Your task to perform on an android device: Search for seafood restaurants on Google Maps Image 0: 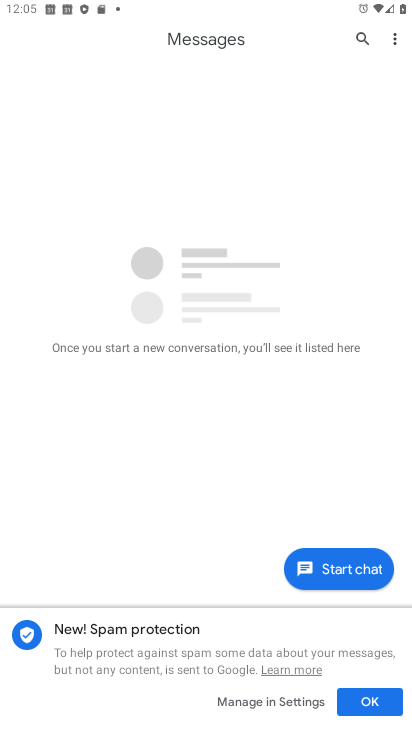
Step 0: drag from (197, 566) to (286, 207)
Your task to perform on an android device: Search for seafood restaurants on Google Maps Image 1: 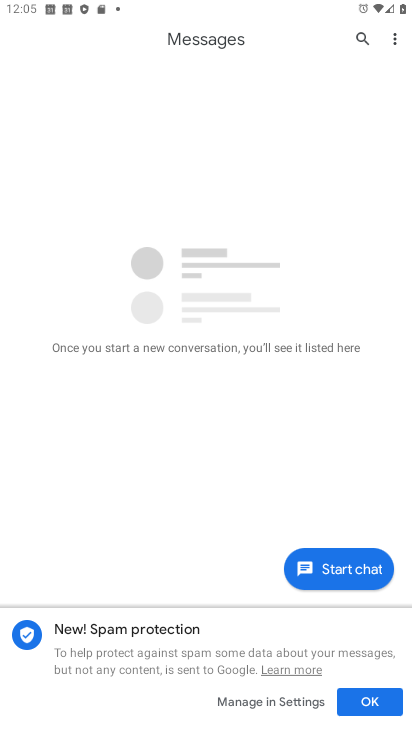
Step 1: drag from (191, 457) to (196, 268)
Your task to perform on an android device: Search for seafood restaurants on Google Maps Image 2: 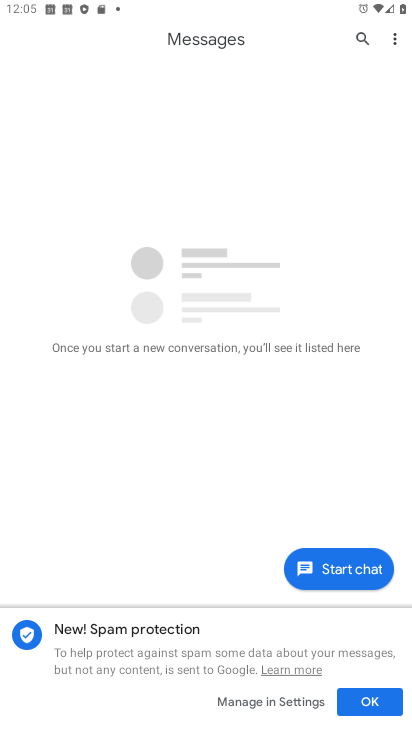
Step 2: drag from (200, 498) to (214, 187)
Your task to perform on an android device: Search for seafood restaurants on Google Maps Image 3: 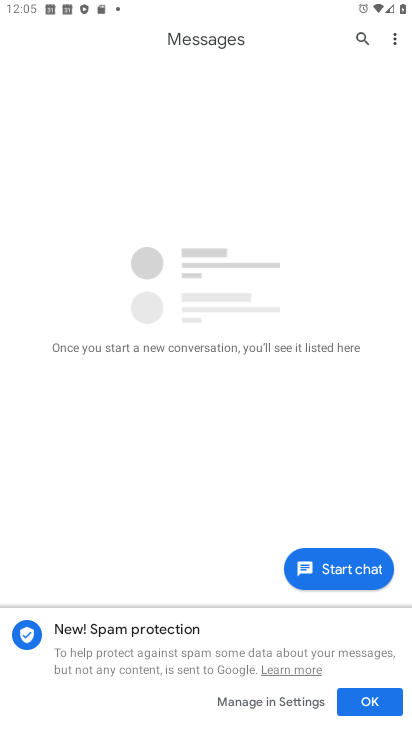
Step 3: drag from (224, 348) to (229, 193)
Your task to perform on an android device: Search for seafood restaurants on Google Maps Image 4: 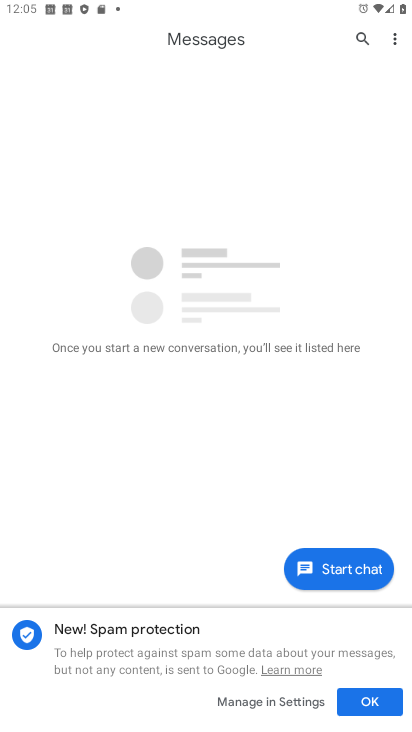
Step 4: drag from (268, 480) to (240, 290)
Your task to perform on an android device: Search for seafood restaurants on Google Maps Image 5: 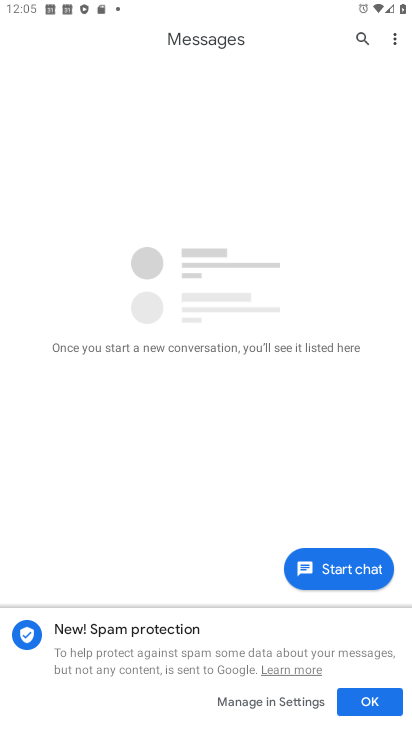
Step 5: drag from (178, 524) to (177, 224)
Your task to perform on an android device: Search for seafood restaurants on Google Maps Image 6: 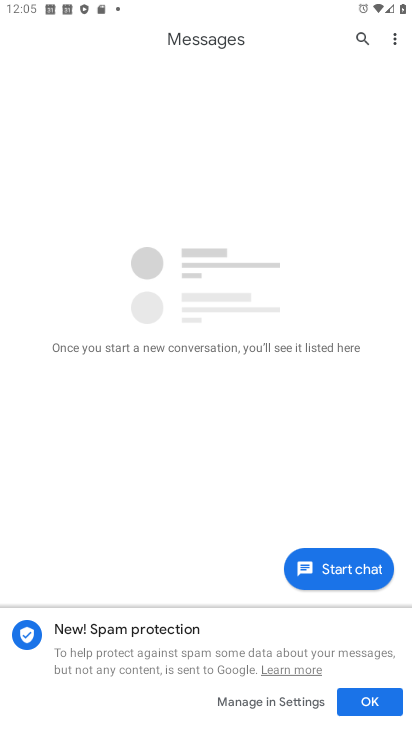
Step 6: drag from (207, 450) to (218, 78)
Your task to perform on an android device: Search for seafood restaurants on Google Maps Image 7: 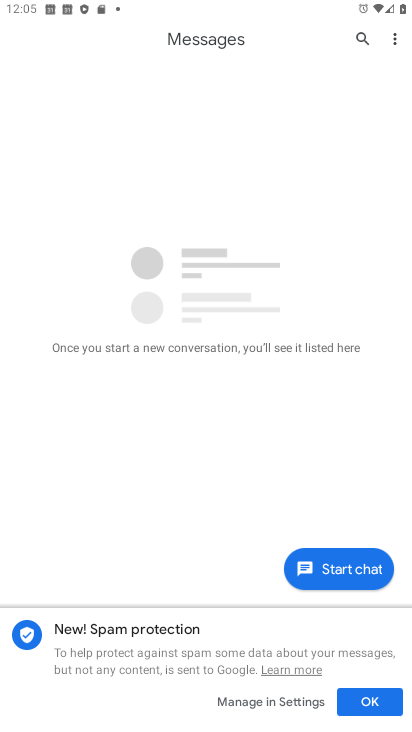
Step 7: drag from (114, 510) to (150, 194)
Your task to perform on an android device: Search for seafood restaurants on Google Maps Image 8: 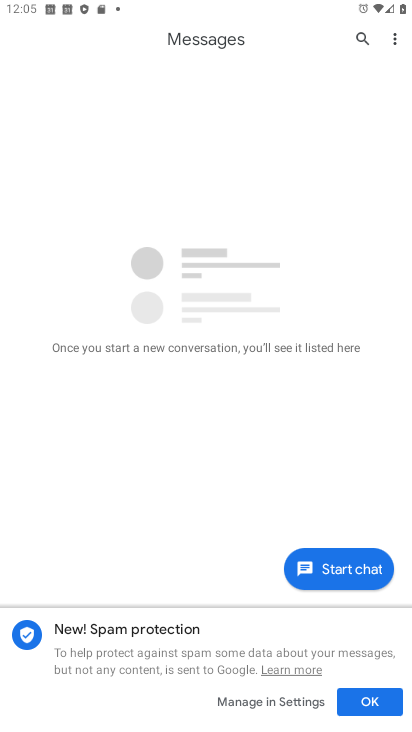
Step 8: drag from (287, 468) to (287, 192)
Your task to perform on an android device: Search for seafood restaurants on Google Maps Image 9: 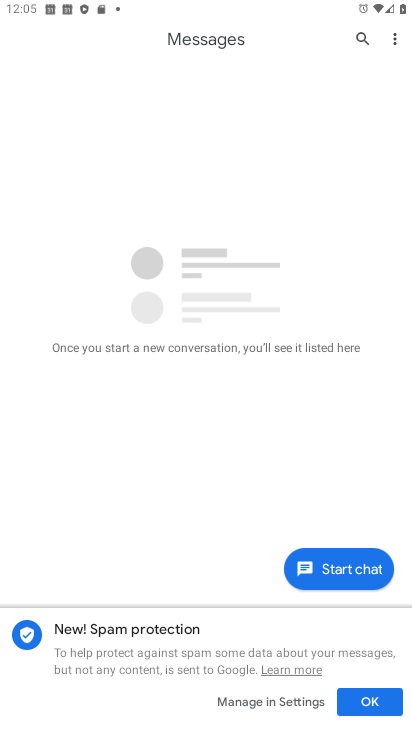
Step 9: click (196, 338)
Your task to perform on an android device: Search for seafood restaurants on Google Maps Image 10: 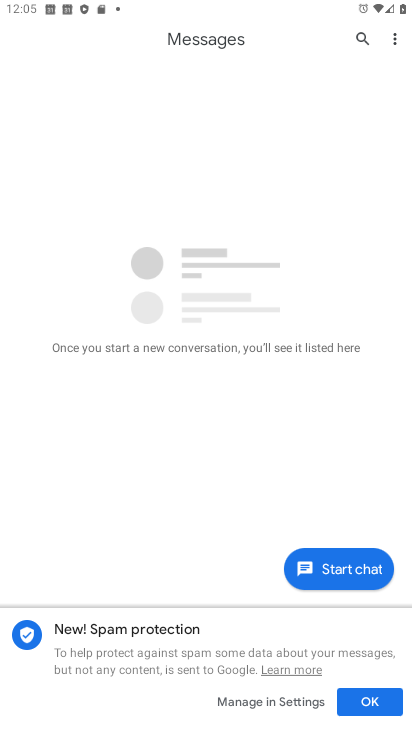
Step 10: drag from (193, 523) to (161, 293)
Your task to perform on an android device: Search for seafood restaurants on Google Maps Image 11: 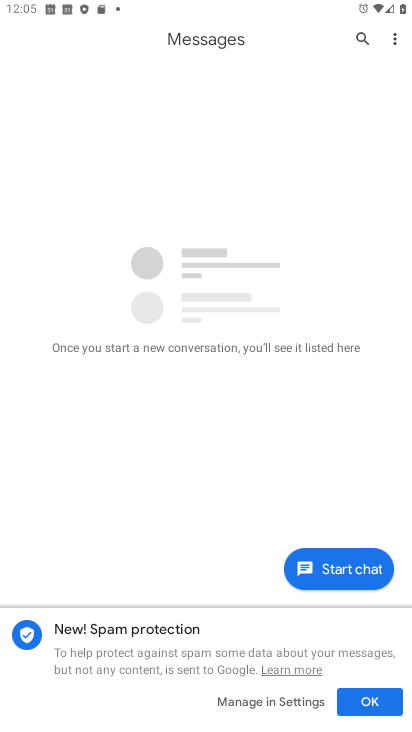
Step 11: press home button
Your task to perform on an android device: Search for seafood restaurants on Google Maps Image 12: 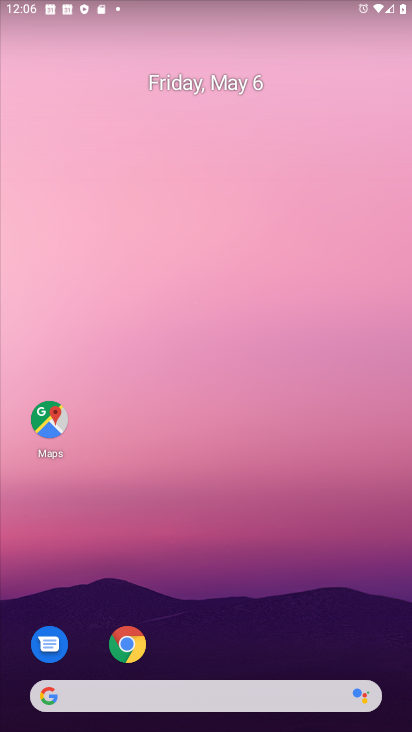
Step 12: drag from (229, 568) to (272, 224)
Your task to perform on an android device: Search for seafood restaurants on Google Maps Image 13: 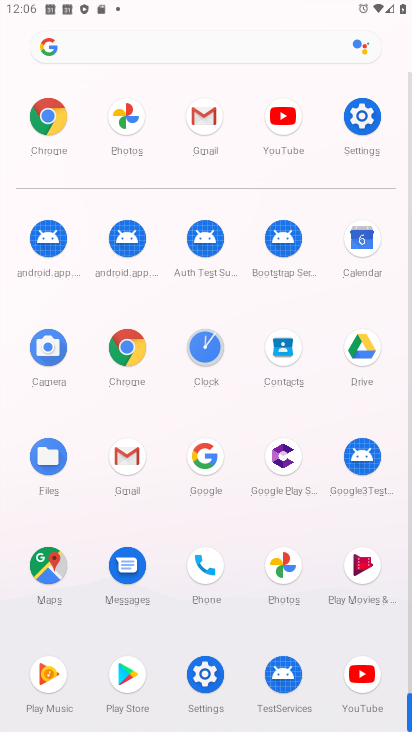
Step 13: click (201, 680)
Your task to perform on an android device: Search for seafood restaurants on Google Maps Image 14: 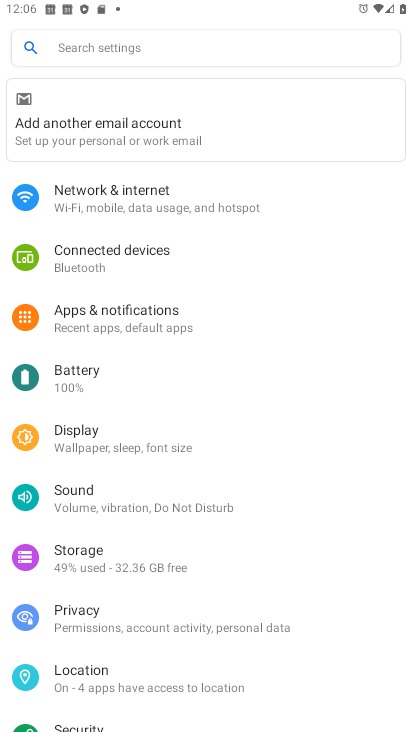
Step 14: drag from (182, 635) to (227, 269)
Your task to perform on an android device: Search for seafood restaurants on Google Maps Image 15: 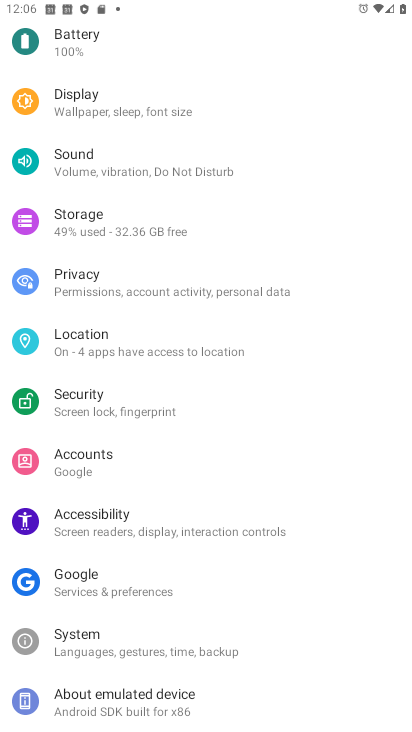
Step 15: press home button
Your task to perform on an android device: Search for seafood restaurants on Google Maps Image 16: 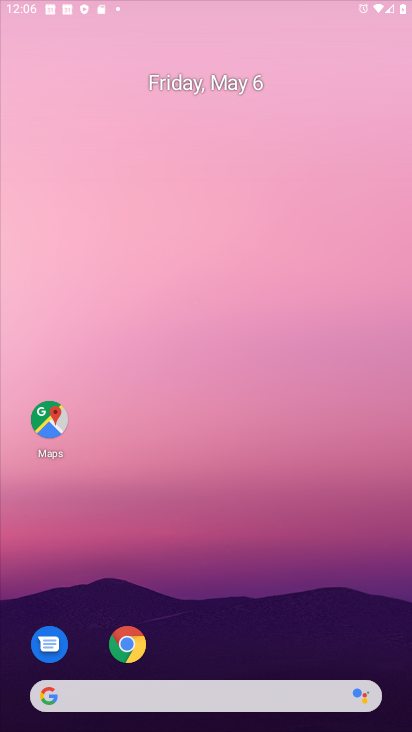
Step 16: drag from (187, 562) to (213, 210)
Your task to perform on an android device: Search for seafood restaurants on Google Maps Image 17: 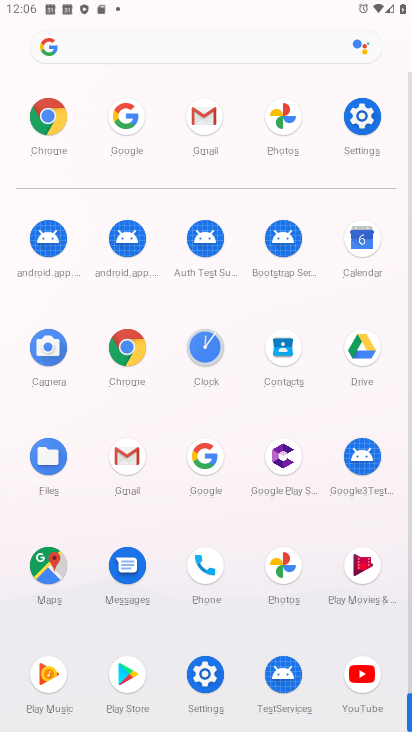
Step 17: click (61, 531)
Your task to perform on an android device: Search for seafood restaurants on Google Maps Image 18: 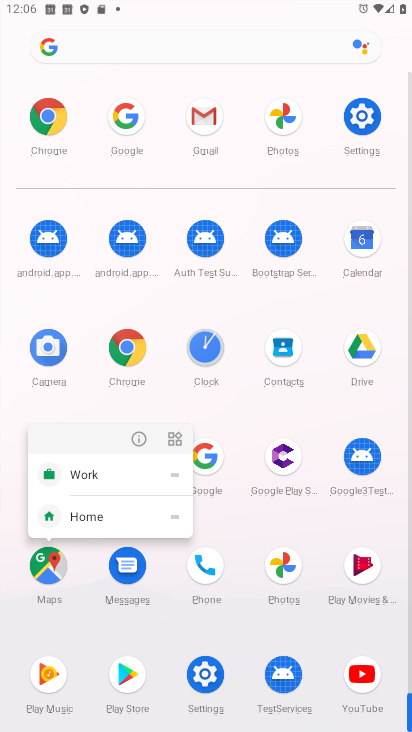
Step 18: click (132, 440)
Your task to perform on an android device: Search for seafood restaurants on Google Maps Image 19: 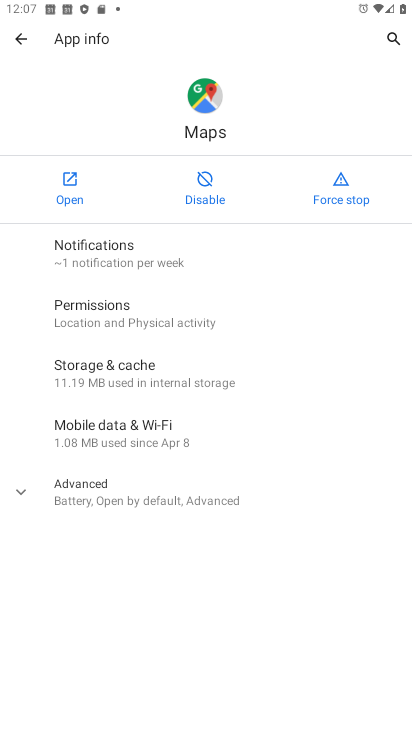
Step 19: click (64, 185)
Your task to perform on an android device: Search for seafood restaurants on Google Maps Image 20: 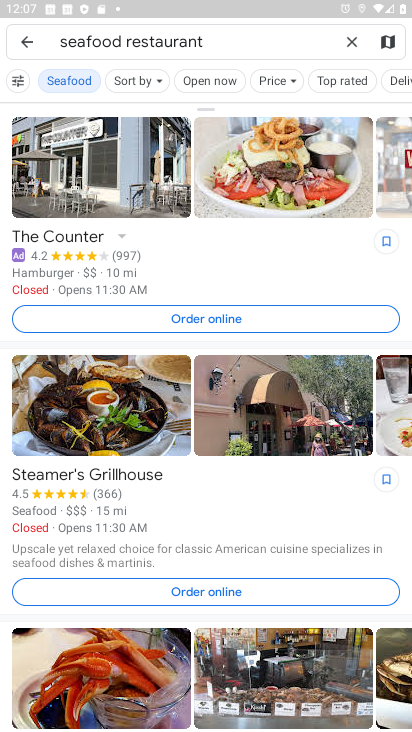
Step 20: drag from (214, 551) to (265, 629)
Your task to perform on an android device: Search for seafood restaurants on Google Maps Image 21: 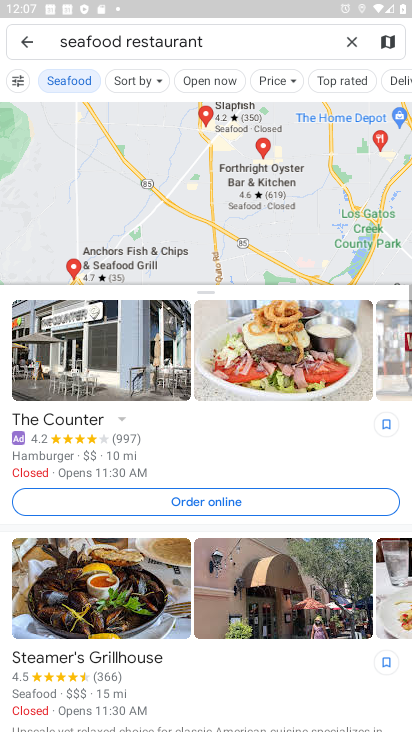
Step 21: drag from (217, 273) to (243, 723)
Your task to perform on an android device: Search for seafood restaurants on Google Maps Image 22: 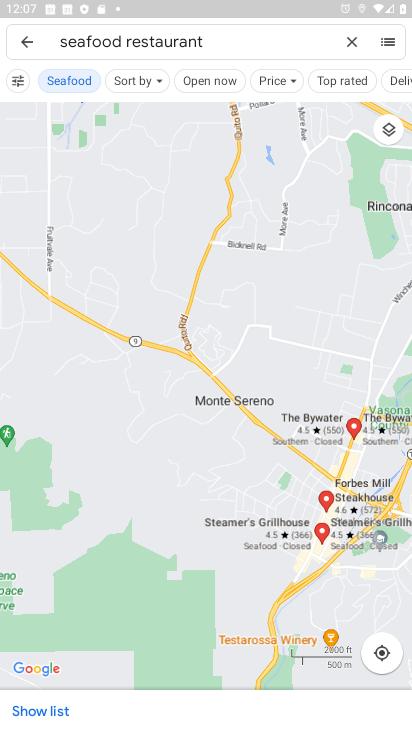
Step 22: drag from (207, 628) to (217, 288)
Your task to perform on an android device: Search for seafood restaurants on Google Maps Image 23: 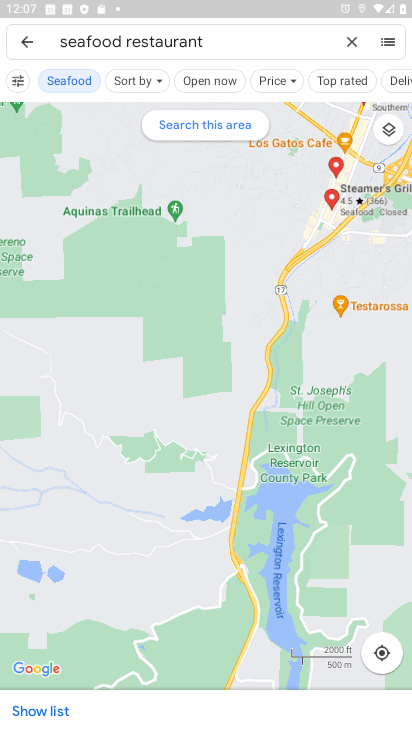
Step 23: click (254, 42)
Your task to perform on an android device: Search for seafood restaurants on Google Maps Image 24: 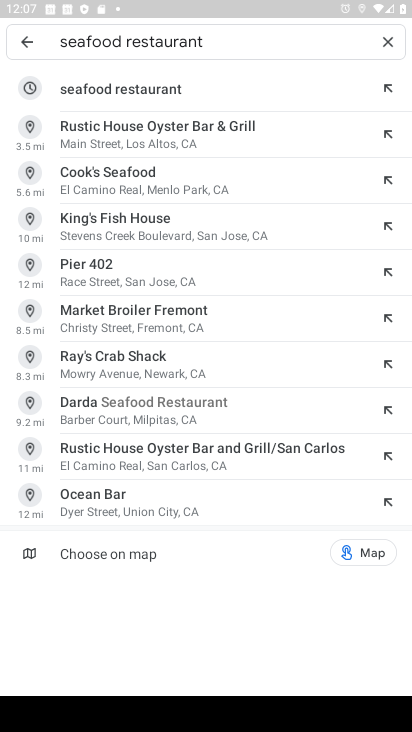
Step 24: click (148, 97)
Your task to perform on an android device: Search for seafood restaurants on Google Maps Image 25: 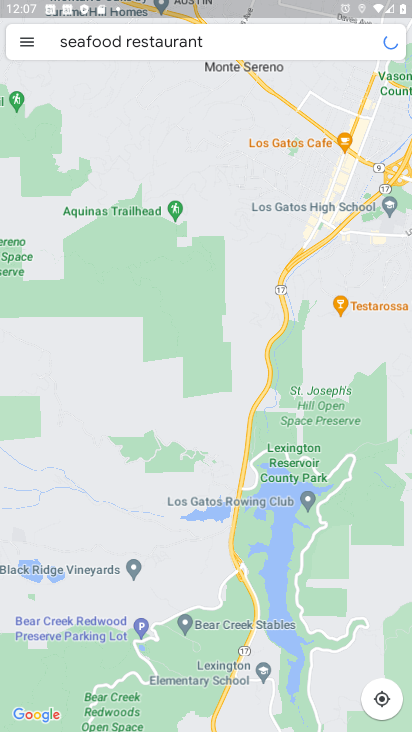
Step 25: task complete